Your task to perform on an android device: clear history in the chrome app Image 0: 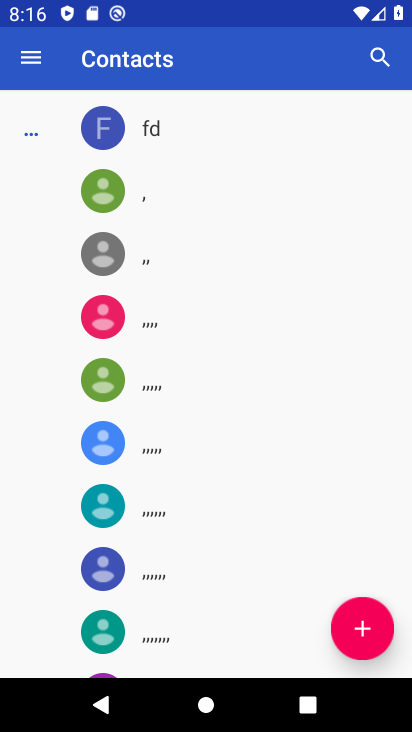
Step 0: press home button
Your task to perform on an android device: clear history in the chrome app Image 1: 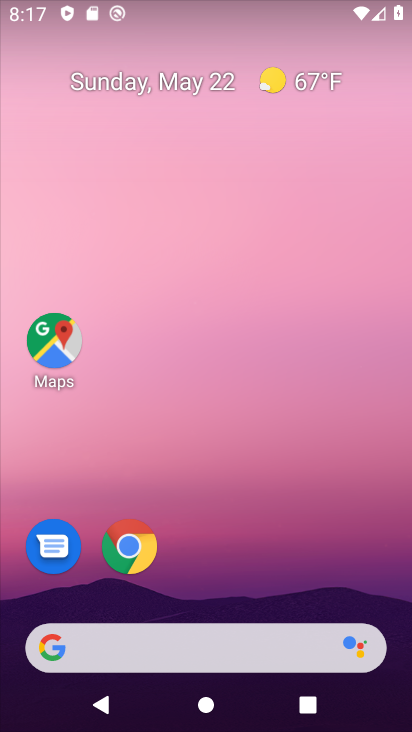
Step 1: click (146, 536)
Your task to perform on an android device: clear history in the chrome app Image 2: 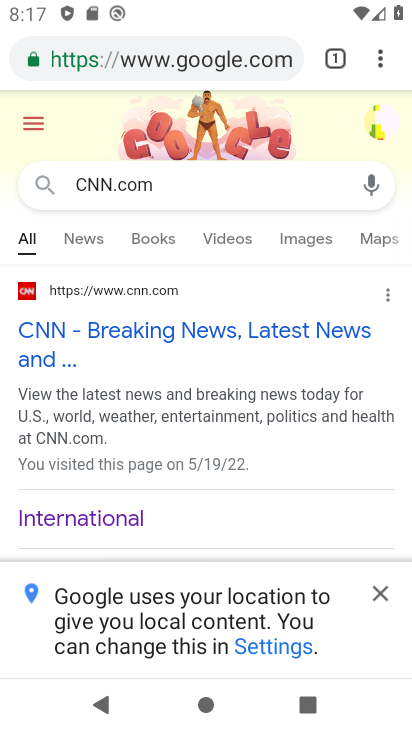
Step 2: click (381, 62)
Your task to perform on an android device: clear history in the chrome app Image 3: 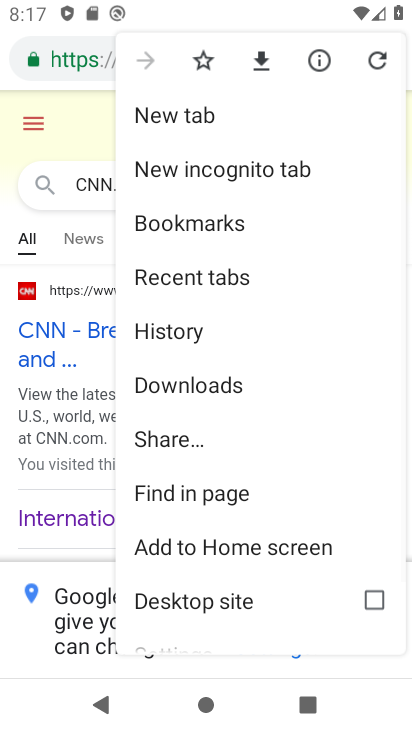
Step 3: drag from (224, 552) to (237, 293)
Your task to perform on an android device: clear history in the chrome app Image 4: 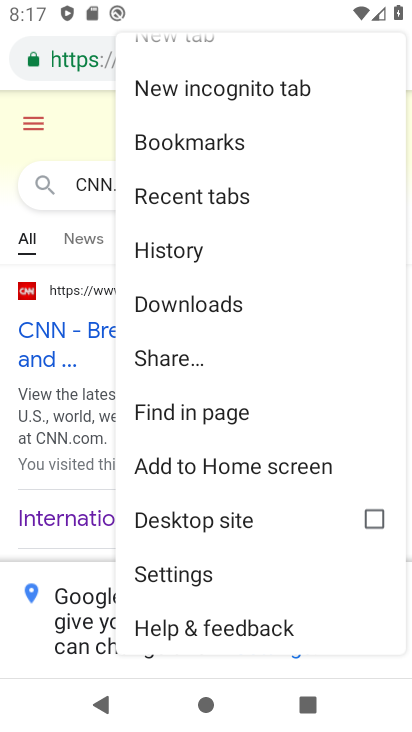
Step 4: click (177, 250)
Your task to perform on an android device: clear history in the chrome app Image 5: 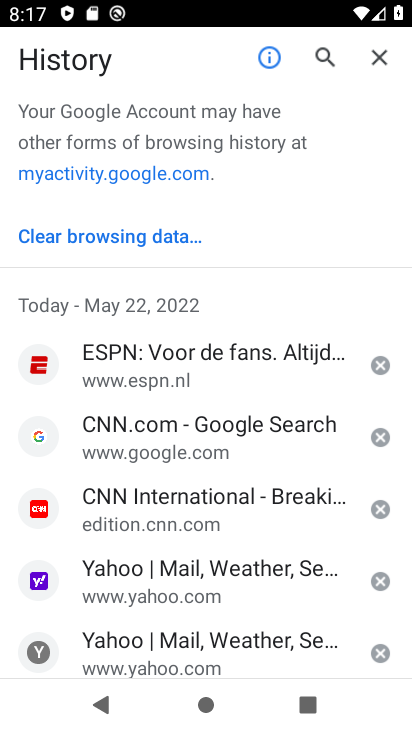
Step 5: click (82, 233)
Your task to perform on an android device: clear history in the chrome app Image 6: 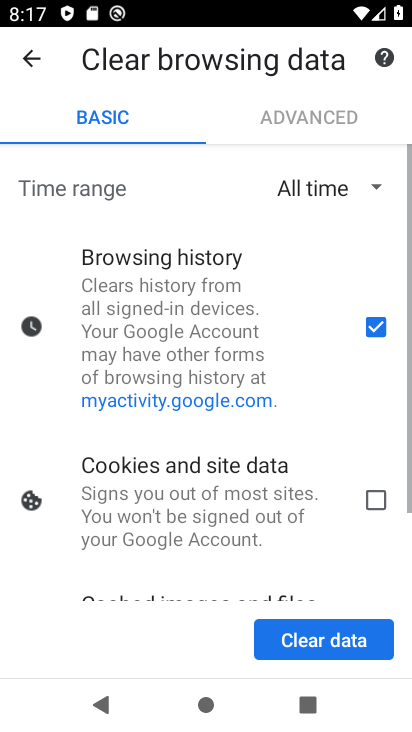
Step 6: drag from (366, 505) to (356, 132)
Your task to perform on an android device: clear history in the chrome app Image 7: 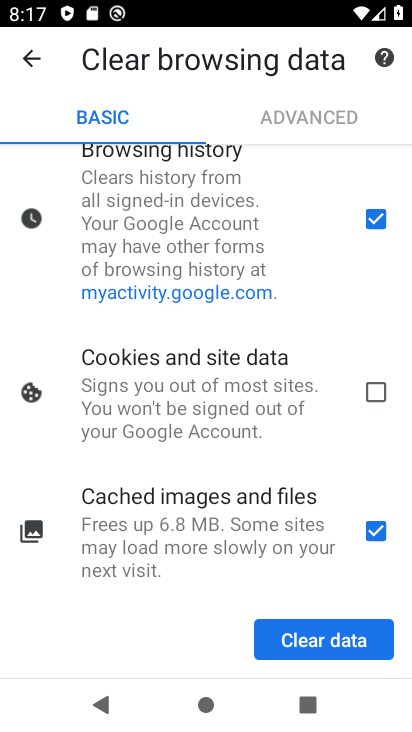
Step 7: click (366, 530)
Your task to perform on an android device: clear history in the chrome app Image 8: 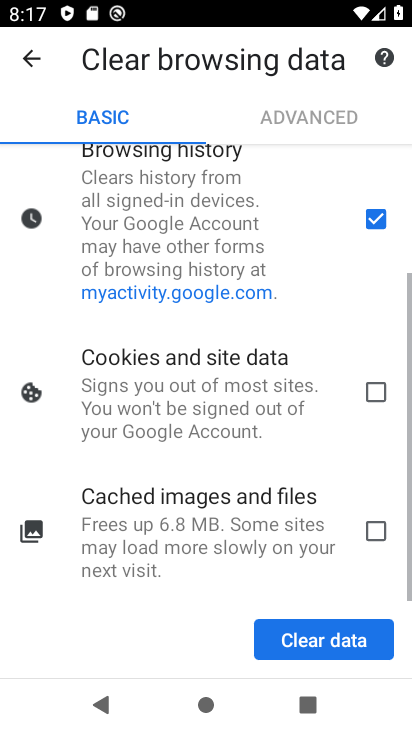
Step 8: click (330, 641)
Your task to perform on an android device: clear history in the chrome app Image 9: 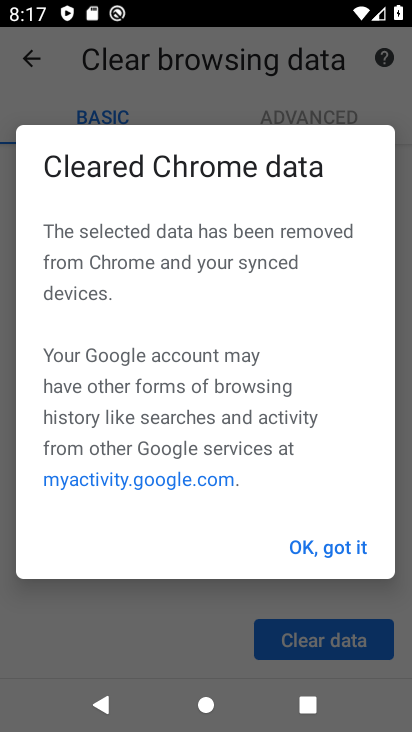
Step 9: click (367, 549)
Your task to perform on an android device: clear history in the chrome app Image 10: 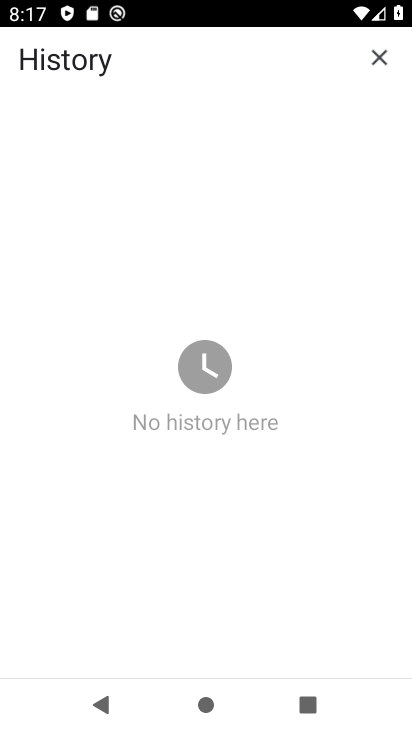
Step 10: task complete